Your task to perform on an android device: delete a single message in the gmail app Image 0: 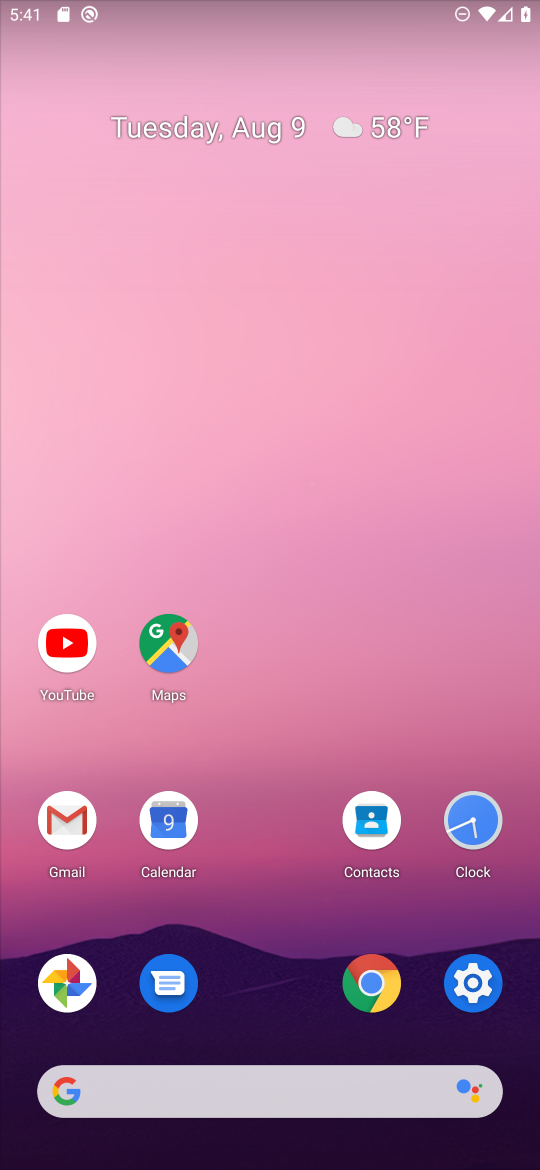
Step 0: click (60, 826)
Your task to perform on an android device: delete a single message in the gmail app Image 1: 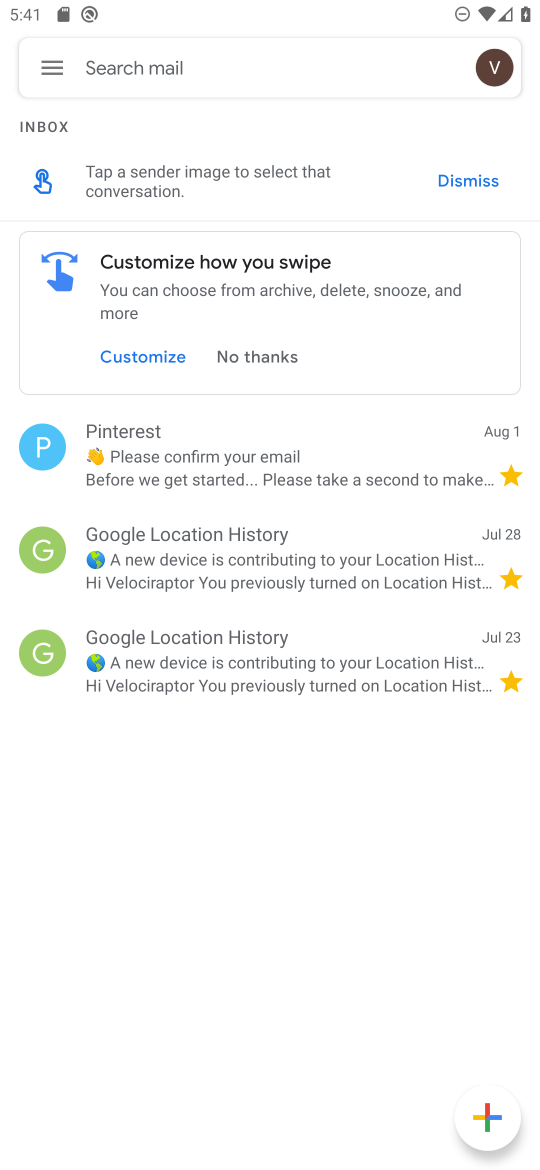
Step 1: click (191, 443)
Your task to perform on an android device: delete a single message in the gmail app Image 2: 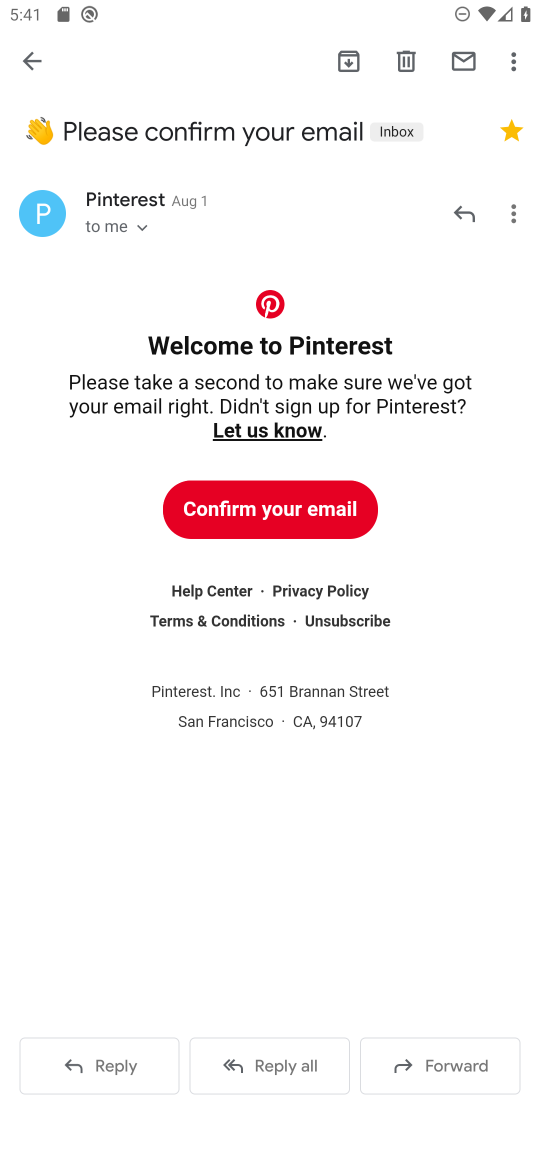
Step 2: click (400, 58)
Your task to perform on an android device: delete a single message in the gmail app Image 3: 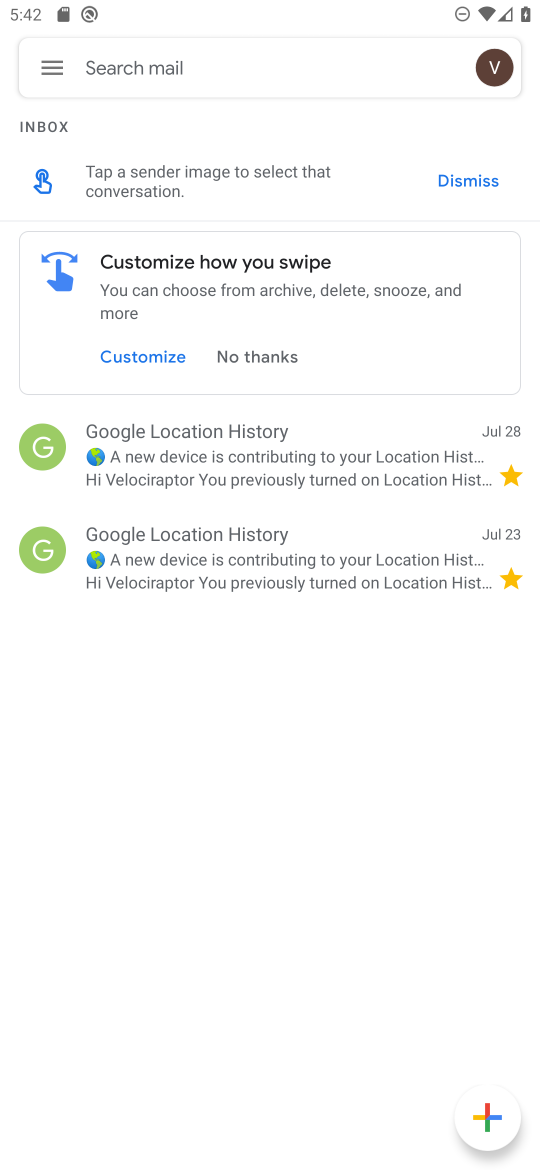
Step 3: task complete